Your task to perform on an android device: Open display settings Image 0: 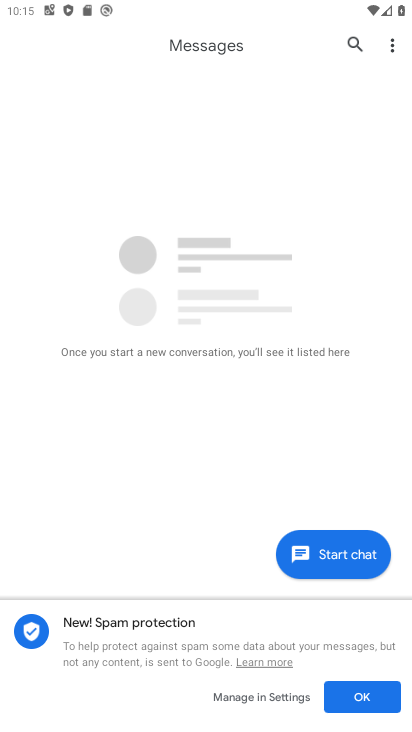
Step 0: press home button
Your task to perform on an android device: Open display settings Image 1: 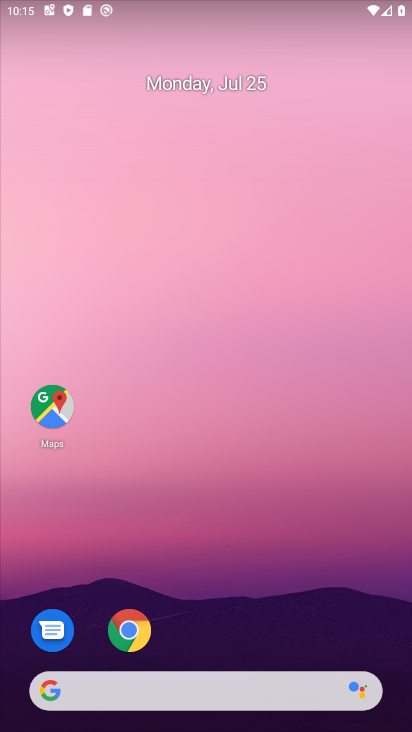
Step 1: drag from (294, 586) to (281, 67)
Your task to perform on an android device: Open display settings Image 2: 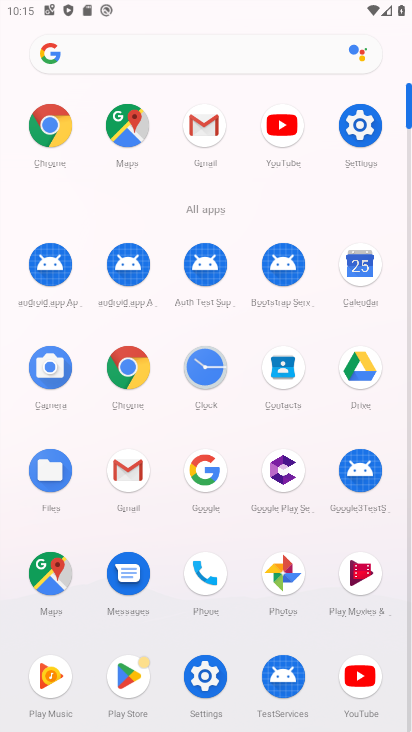
Step 2: click (366, 125)
Your task to perform on an android device: Open display settings Image 3: 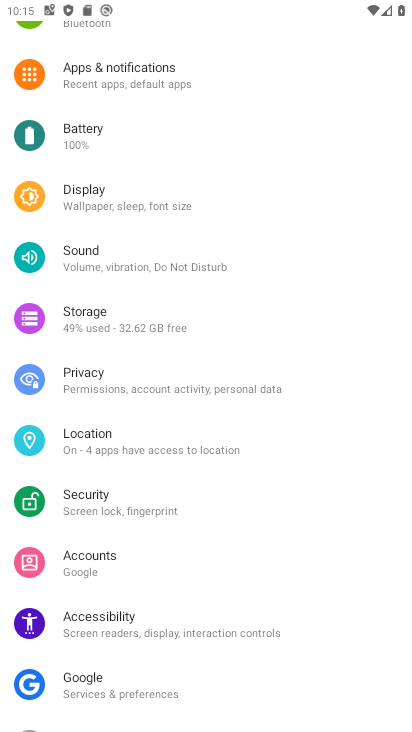
Step 3: drag from (349, 405) to (340, 288)
Your task to perform on an android device: Open display settings Image 4: 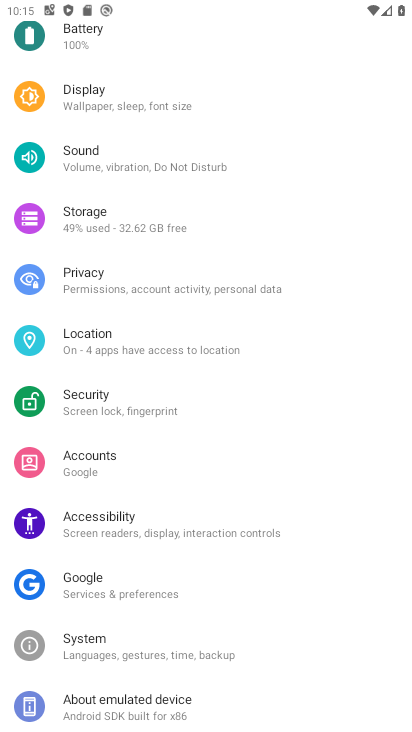
Step 4: drag from (333, 457) to (323, 352)
Your task to perform on an android device: Open display settings Image 5: 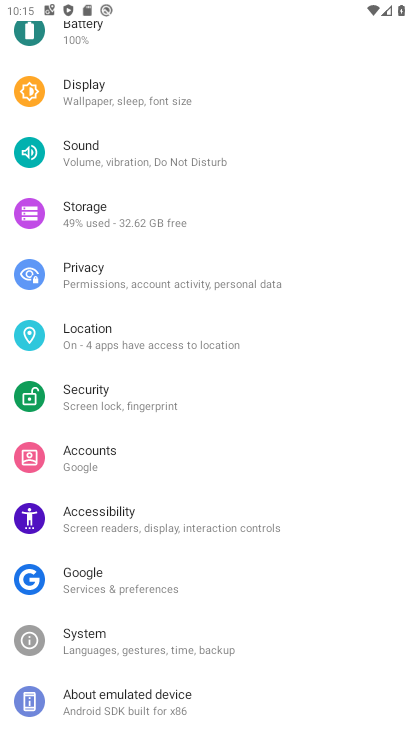
Step 5: drag from (304, 498) to (297, 376)
Your task to perform on an android device: Open display settings Image 6: 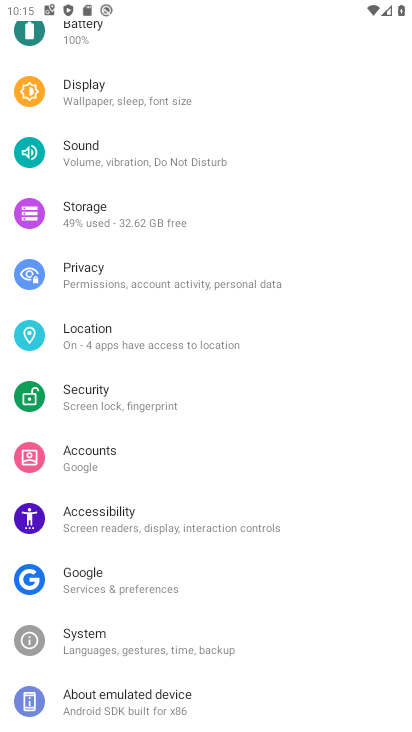
Step 6: drag from (331, 274) to (325, 379)
Your task to perform on an android device: Open display settings Image 7: 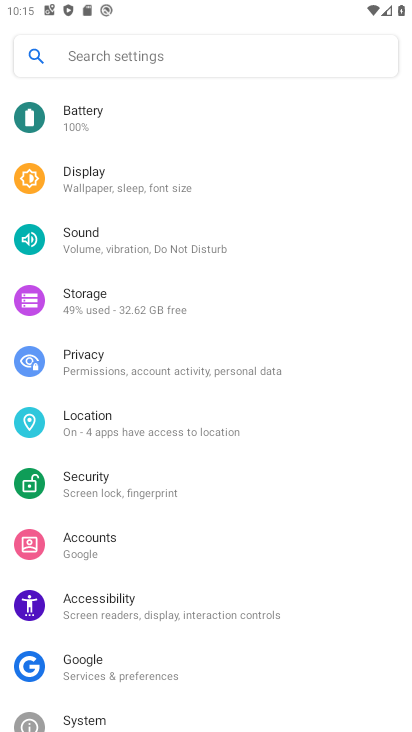
Step 7: drag from (319, 245) to (319, 459)
Your task to perform on an android device: Open display settings Image 8: 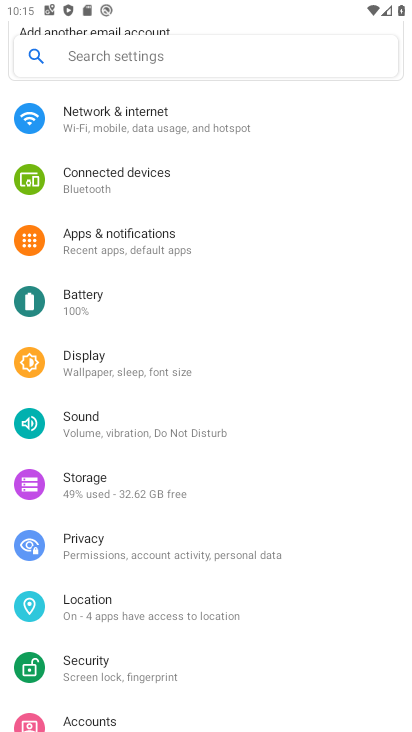
Step 8: drag from (293, 241) to (299, 447)
Your task to perform on an android device: Open display settings Image 9: 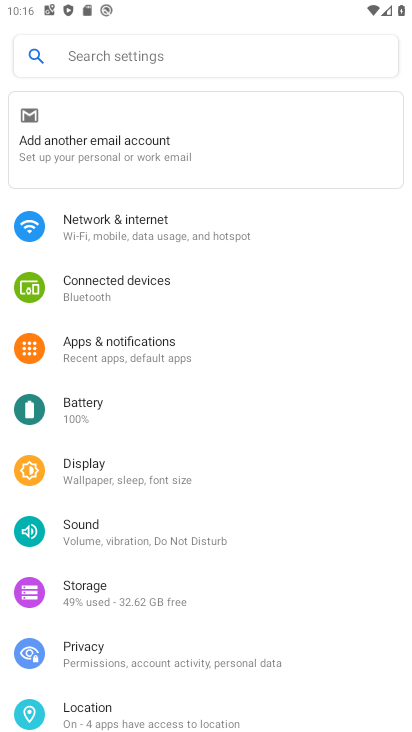
Step 9: click (218, 469)
Your task to perform on an android device: Open display settings Image 10: 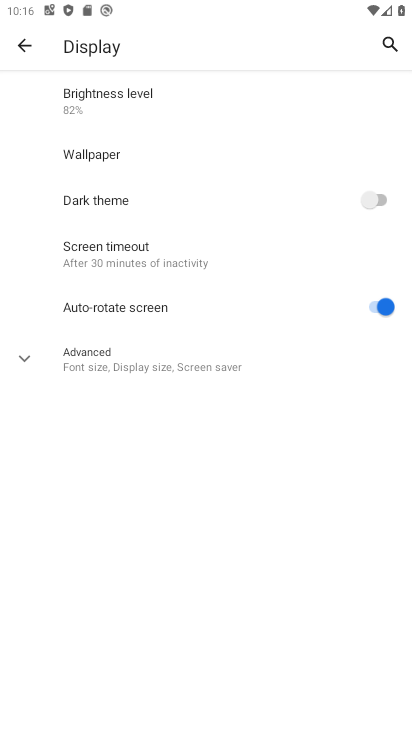
Step 10: task complete